Your task to perform on an android device: set an alarm Image 0: 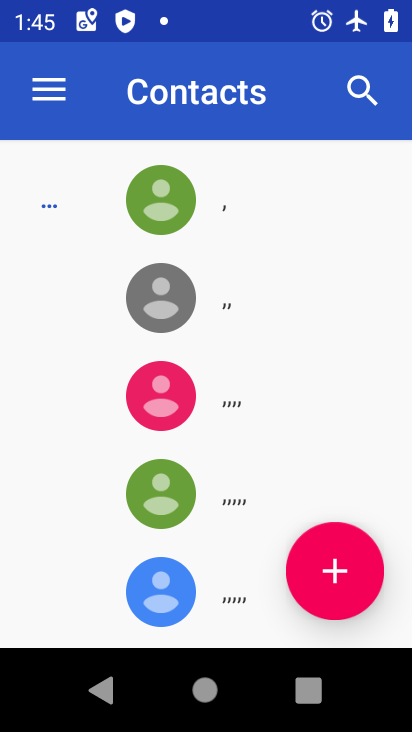
Step 0: press home button
Your task to perform on an android device: set an alarm Image 1: 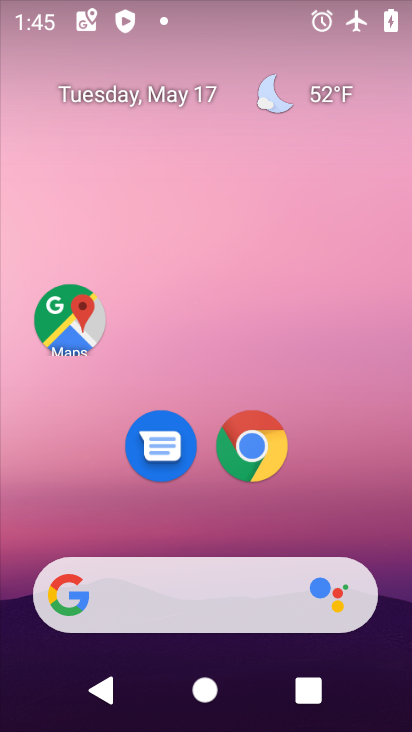
Step 1: drag from (122, 560) to (218, 205)
Your task to perform on an android device: set an alarm Image 2: 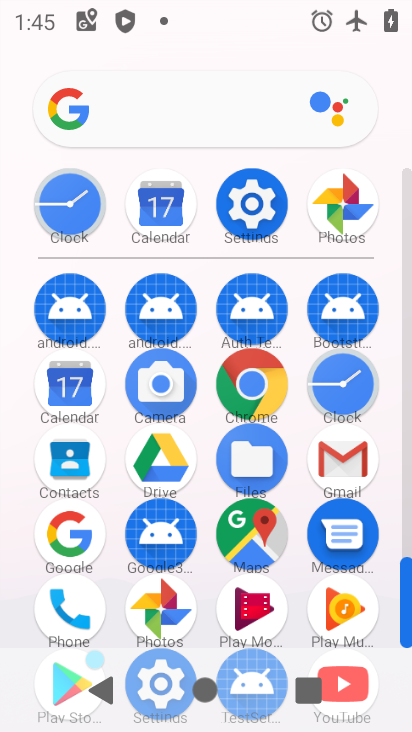
Step 2: click (355, 397)
Your task to perform on an android device: set an alarm Image 3: 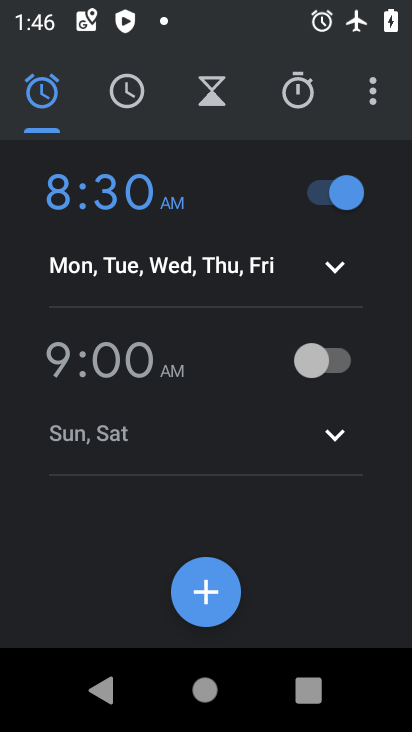
Step 3: task complete